Your task to perform on an android device: Check the new Jordans on Nike. Image 0: 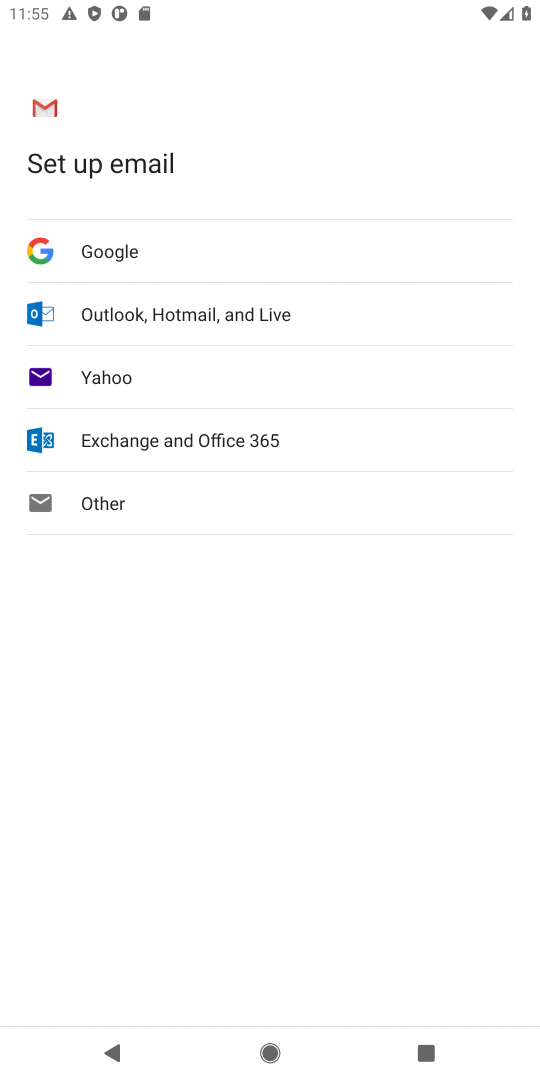
Step 0: press home button
Your task to perform on an android device: Check the new Jordans on Nike. Image 1: 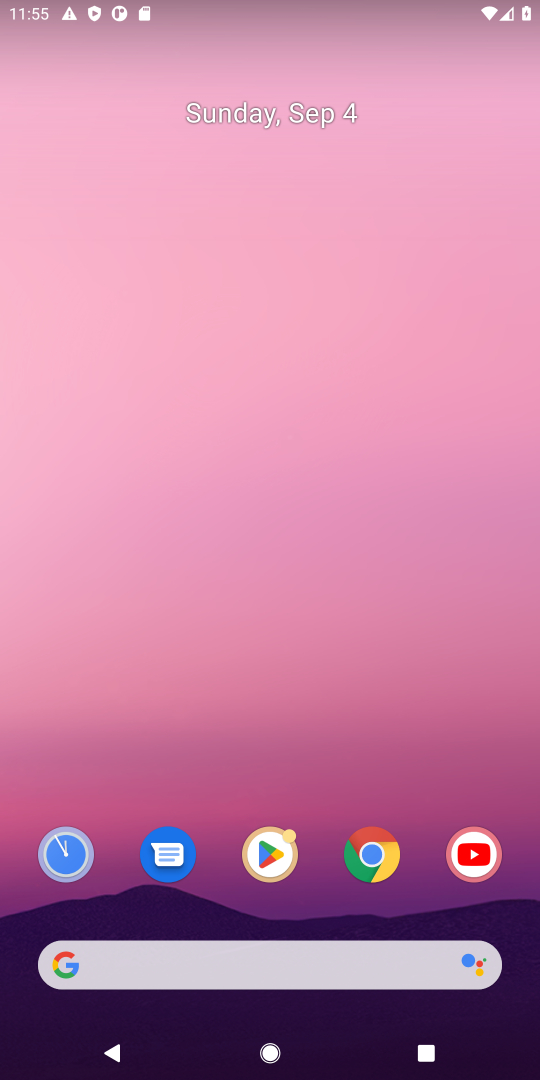
Step 1: click (382, 964)
Your task to perform on an android device: Check the new Jordans on Nike. Image 2: 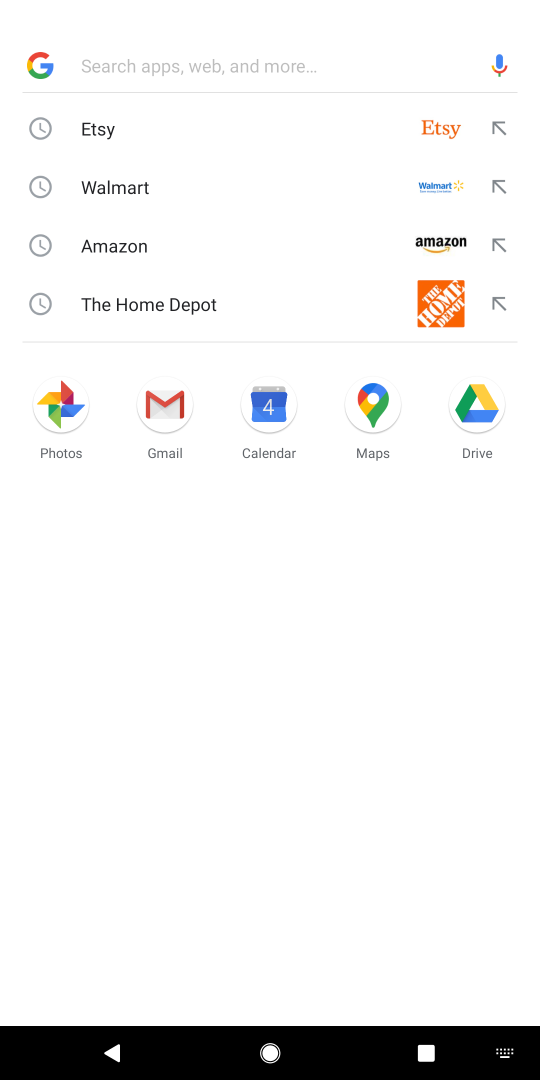
Step 2: type "nike"
Your task to perform on an android device: Check the new Jordans on Nike. Image 3: 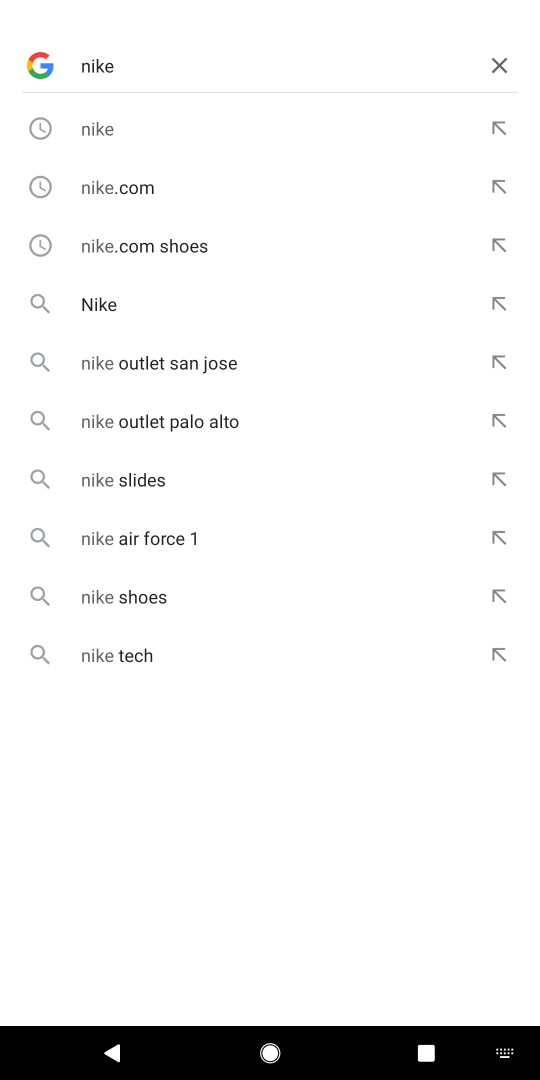
Step 3: press enter
Your task to perform on an android device: Check the new Jordans on Nike. Image 4: 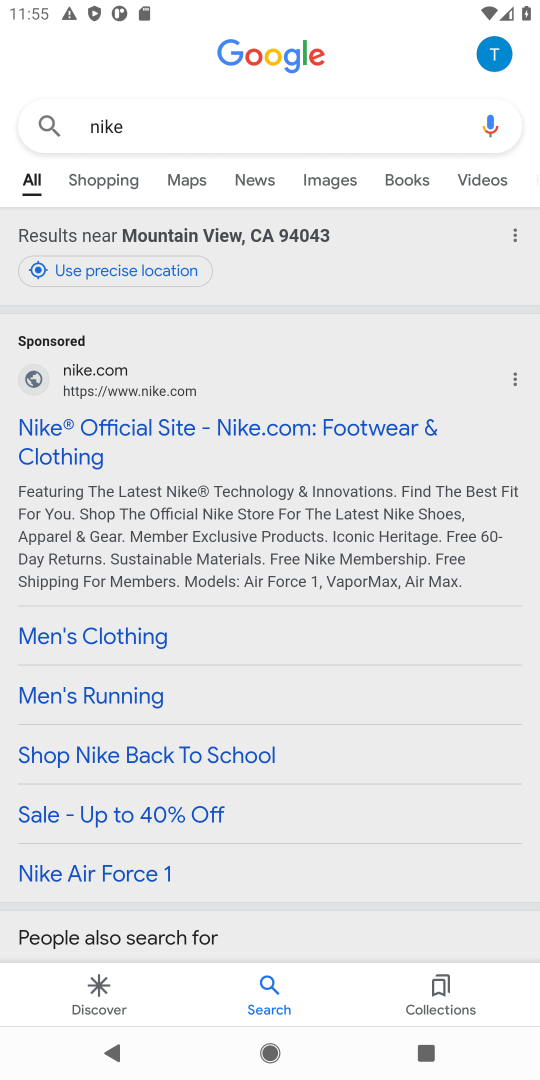
Step 4: click (157, 433)
Your task to perform on an android device: Check the new Jordans on Nike. Image 5: 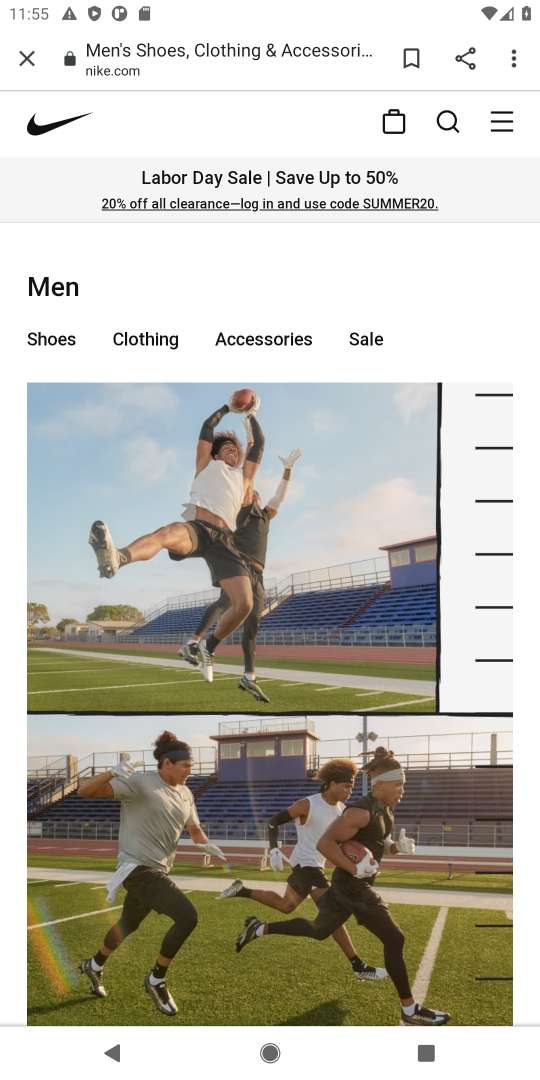
Step 5: click (437, 113)
Your task to perform on an android device: Check the new Jordans on Nike. Image 6: 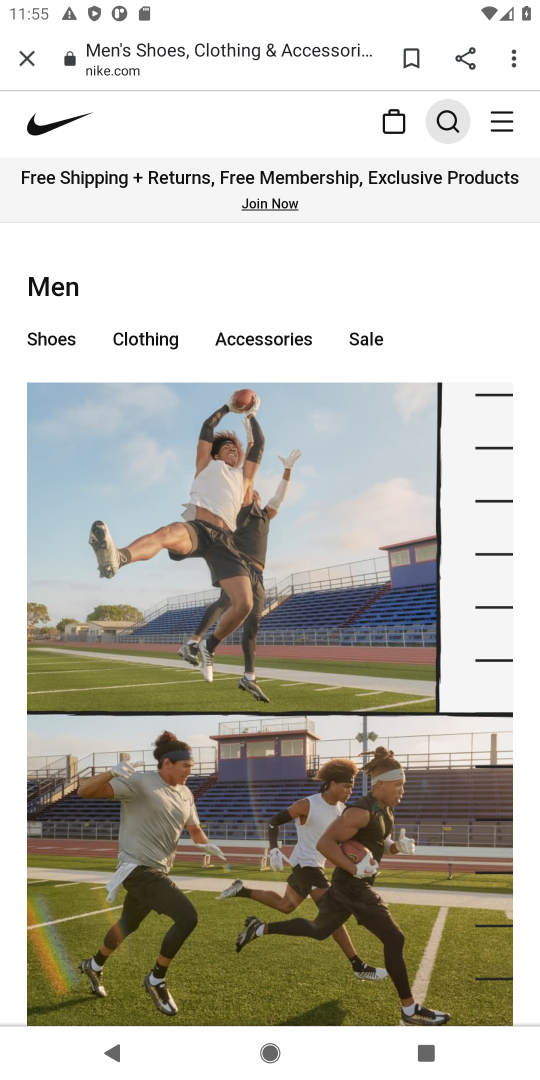
Step 6: click (447, 108)
Your task to perform on an android device: Check the new Jordans on Nike. Image 7: 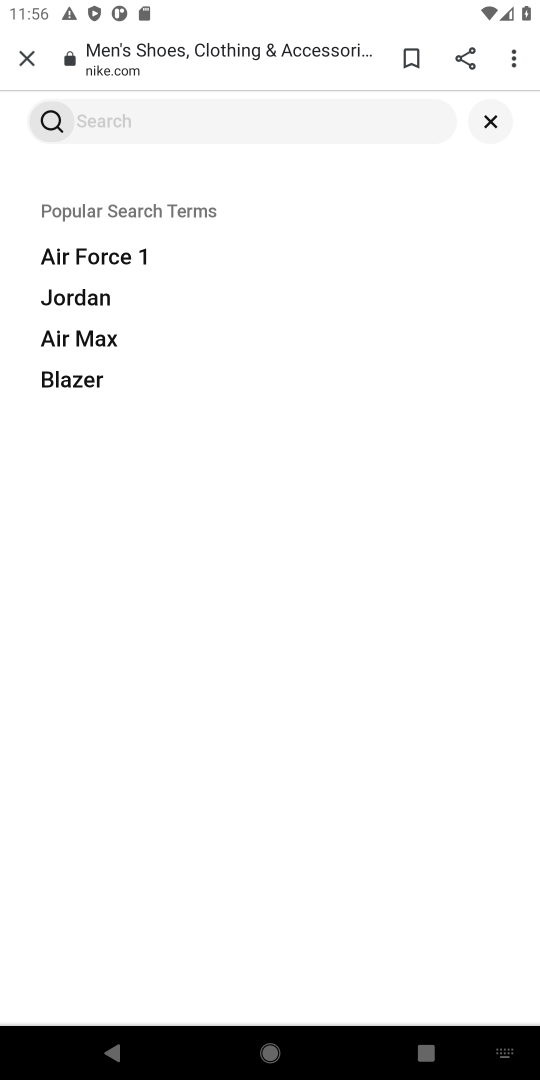
Step 7: type "new jordans"
Your task to perform on an android device: Check the new Jordans on Nike. Image 8: 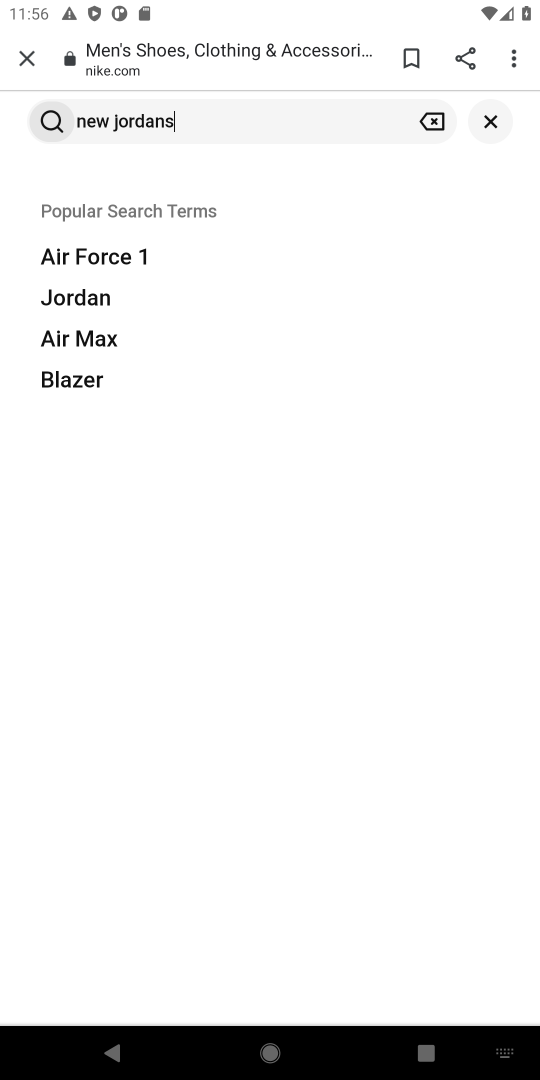
Step 8: press enter
Your task to perform on an android device: Check the new Jordans on Nike. Image 9: 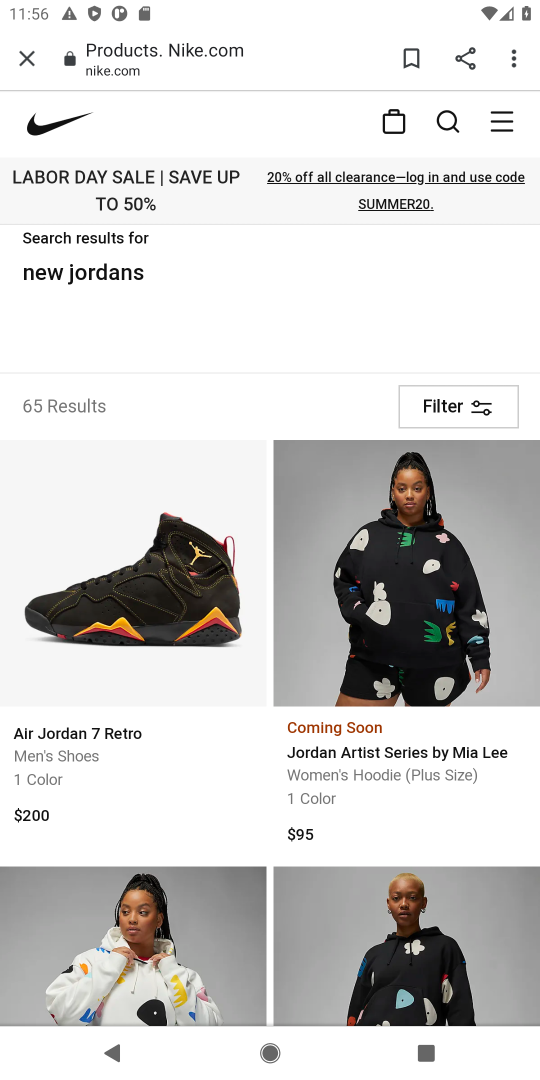
Step 9: task complete